Your task to perform on an android device: install app "Google Calendar" Image 0: 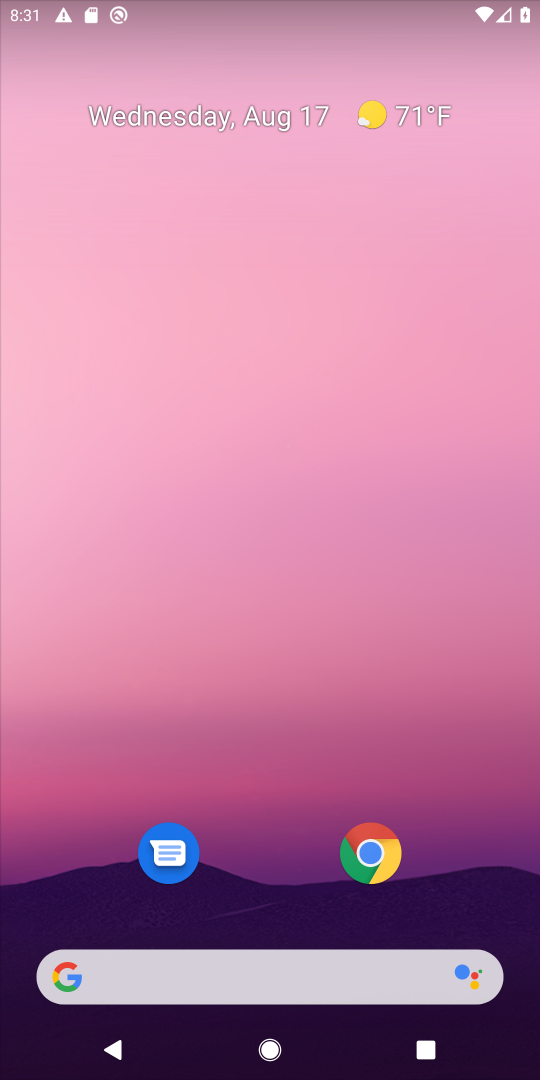
Step 0: drag from (260, 836) to (318, 221)
Your task to perform on an android device: install app "Google Calendar" Image 1: 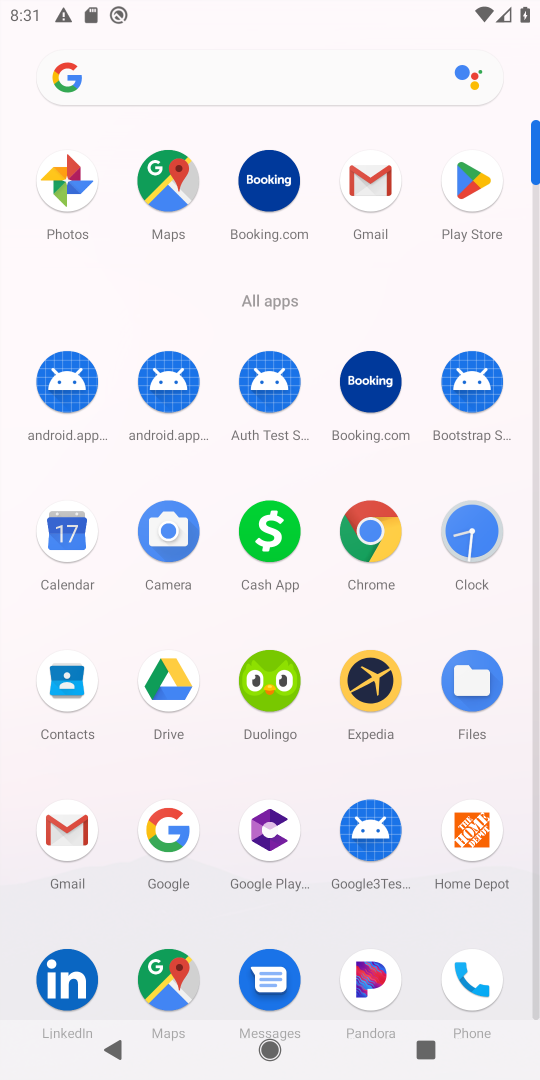
Step 1: click (474, 211)
Your task to perform on an android device: install app "Google Calendar" Image 2: 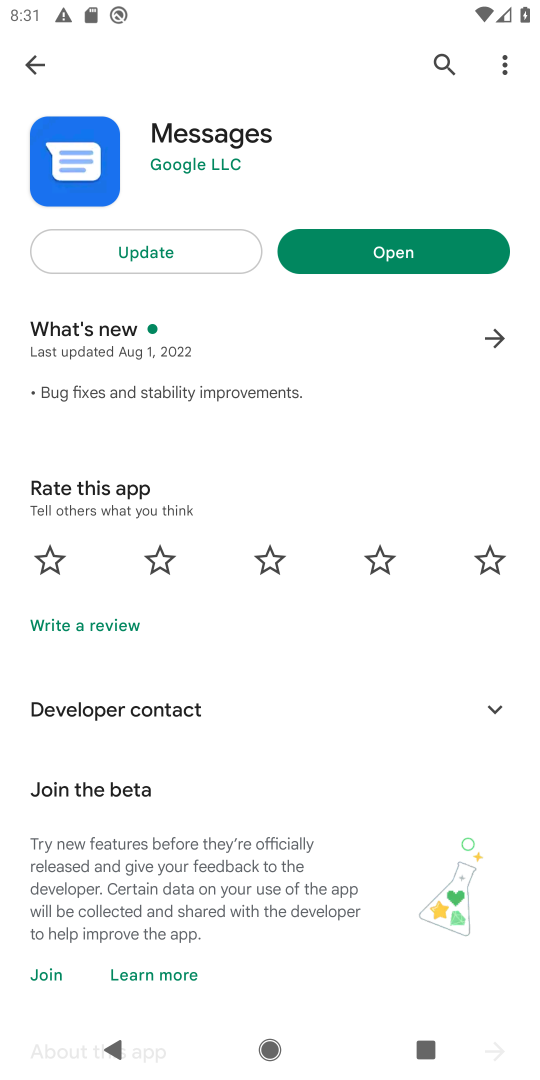
Step 2: click (457, 73)
Your task to perform on an android device: install app "Google Calendar" Image 3: 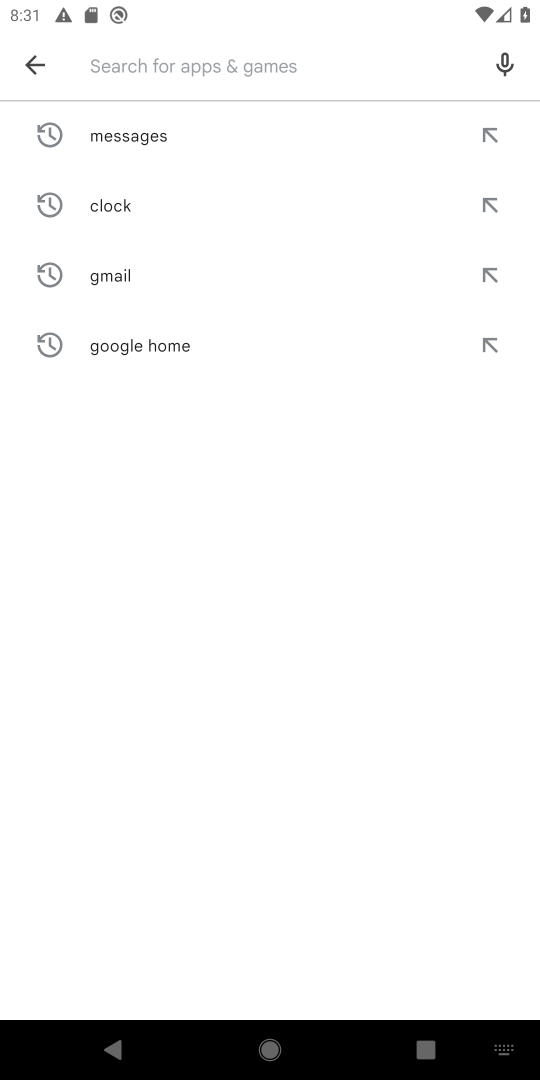
Step 3: type "Google Calendar"
Your task to perform on an android device: install app "Google Calendar" Image 4: 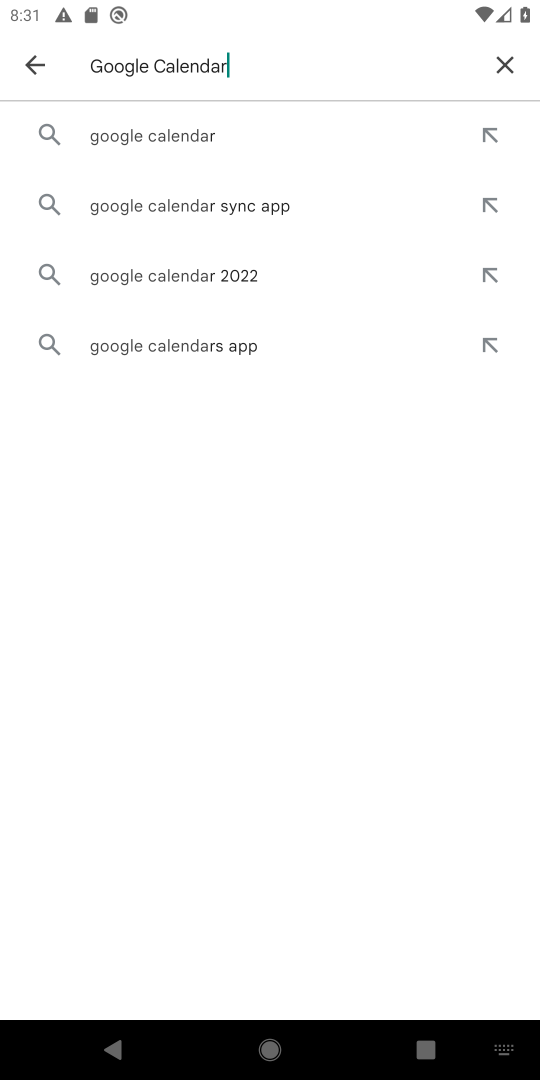
Step 4: type ""
Your task to perform on an android device: install app "Google Calendar" Image 5: 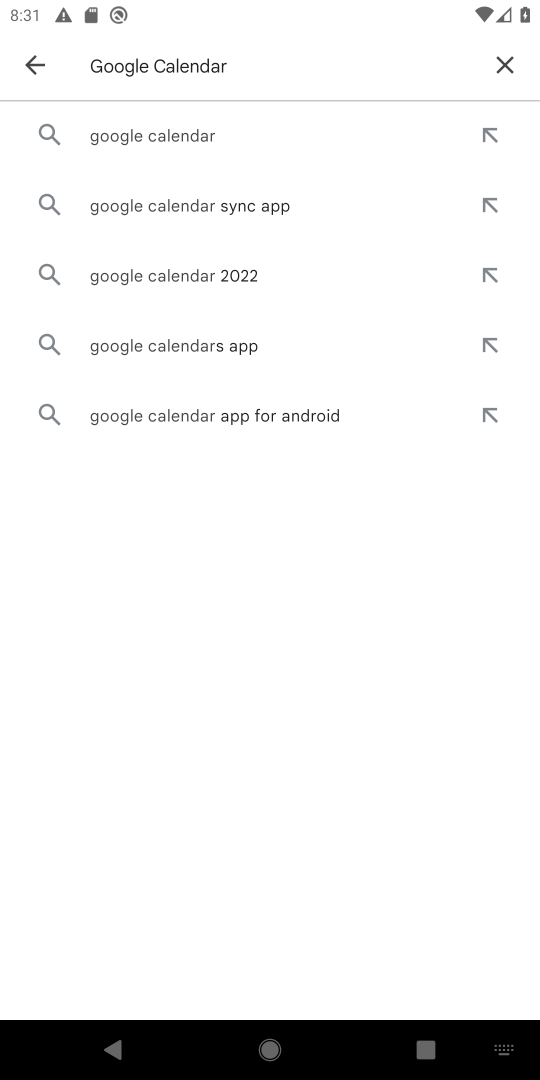
Step 5: click (132, 138)
Your task to perform on an android device: install app "Google Calendar" Image 6: 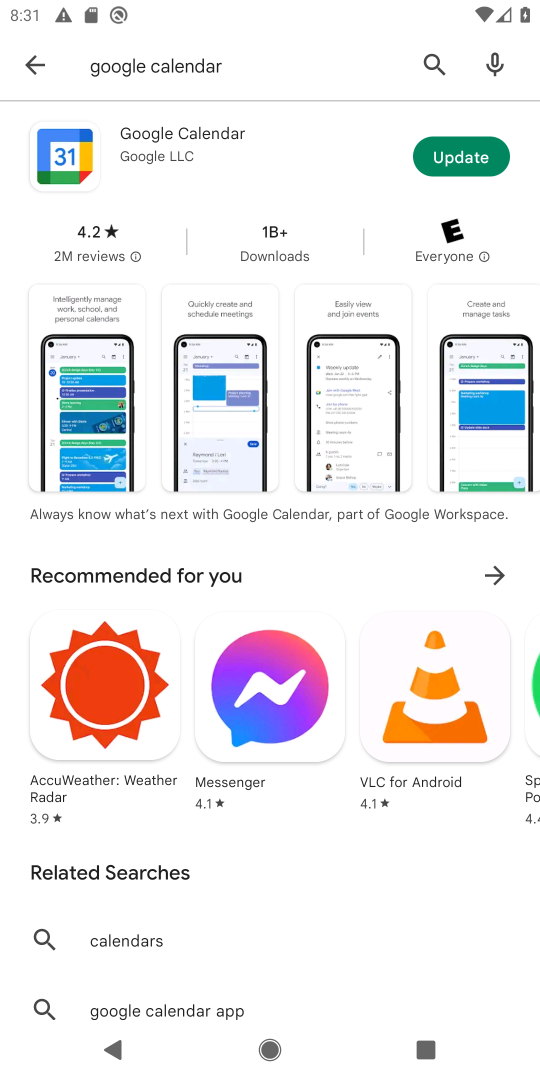
Step 6: click (203, 134)
Your task to perform on an android device: install app "Google Calendar" Image 7: 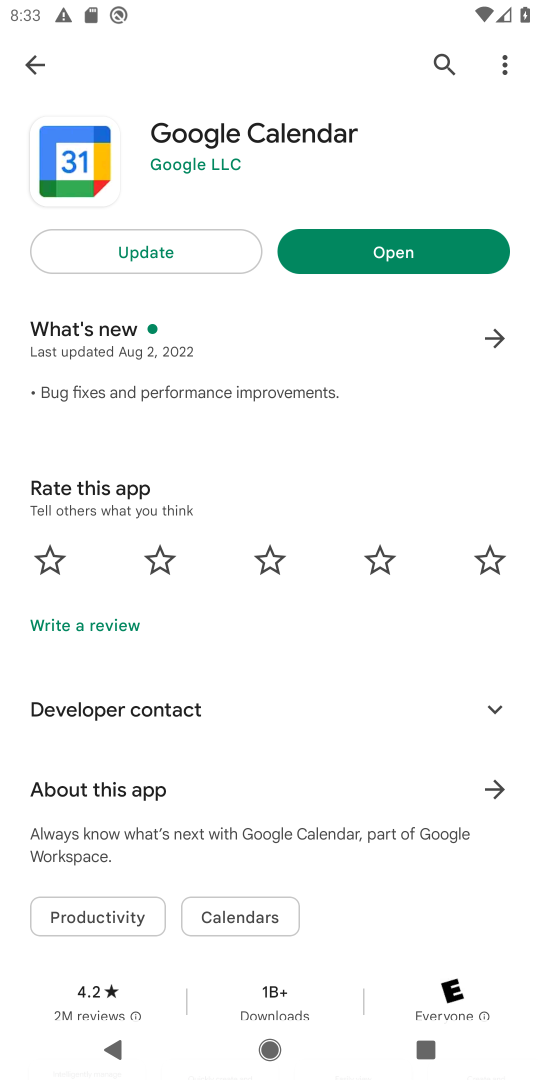
Step 7: task complete